Your task to perform on an android device: delete location history Image 0: 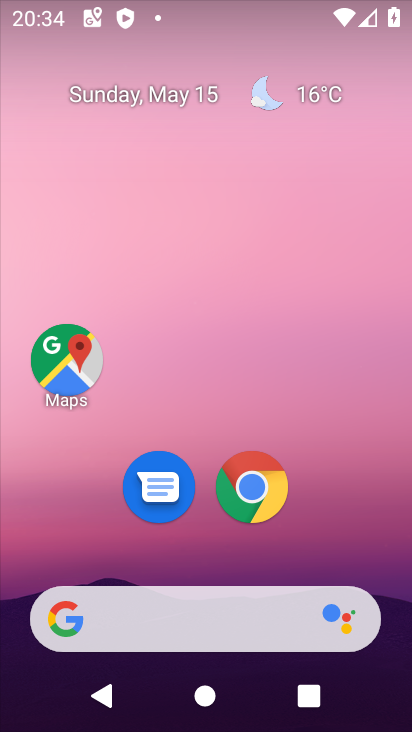
Step 0: drag from (390, 650) to (380, 187)
Your task to perform on an android device: delete location history Image 1: 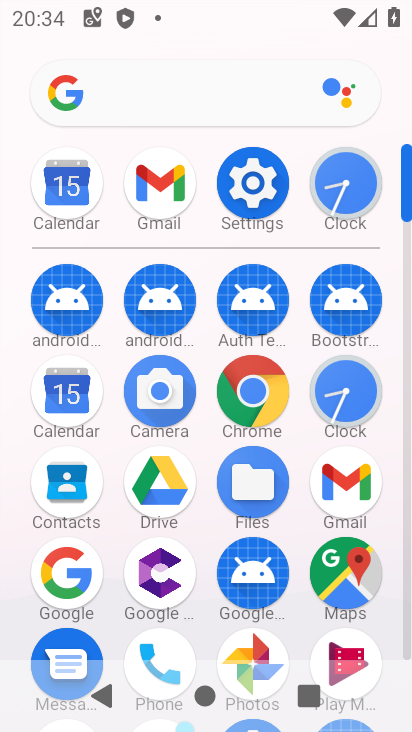
Step 1: click (248, 188)
Your task to perform on an android device: delete location history Image 2: 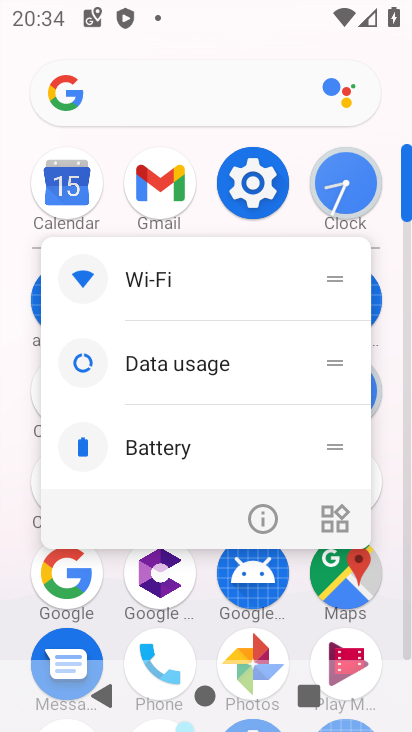
Step 2: click (249, 186)
Your task to perform on an android device: delete location history Image 3: 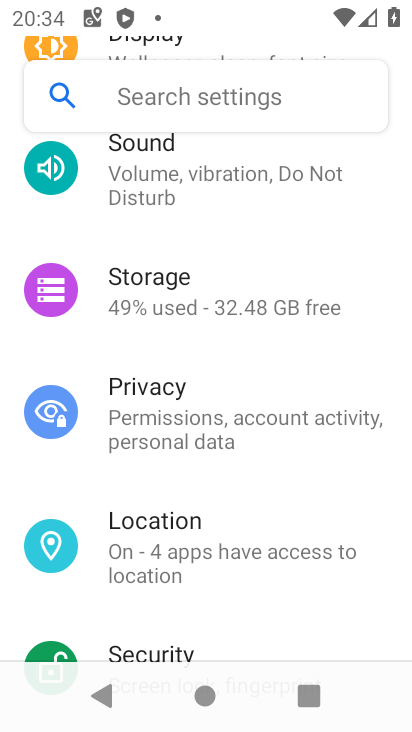
Step 3: click (152, 535)
Your task to perform on an android device: delete location history Image 4: 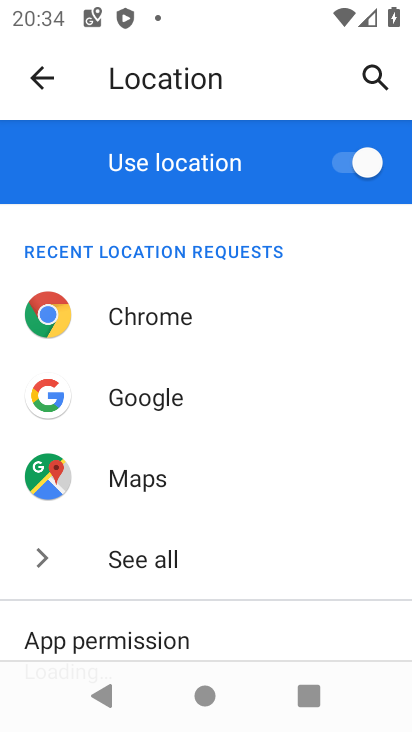
Step 4: drag from (216, 531) to (227, 375)
Your task to perform on an android device: delete location history Image 5: 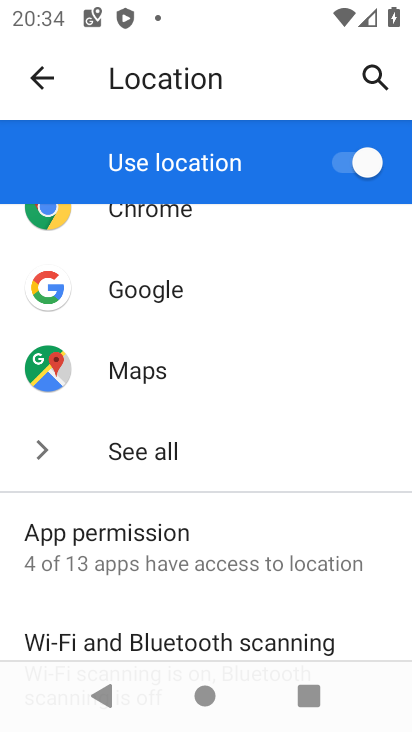
Step 5: drag from (280, 506) to (306, 356)
Your task to perform on an android device: delete location history Image 6: 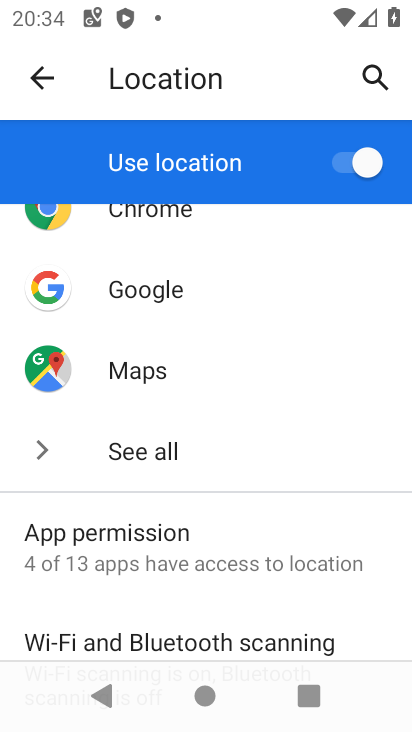
Step 6: drag from (288, 620) to (315, 416)
Your task to perform on an android device: delete location history Image 7: 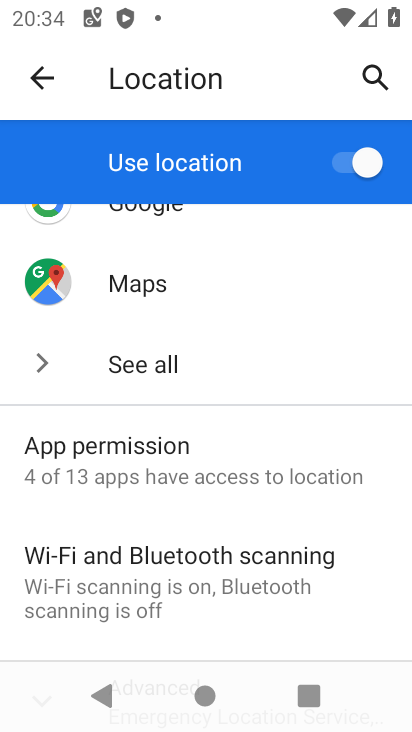
Step 7: drag from (310, 602) to (302, 232)
Your task to perform on an android device: delete location history Image 8: 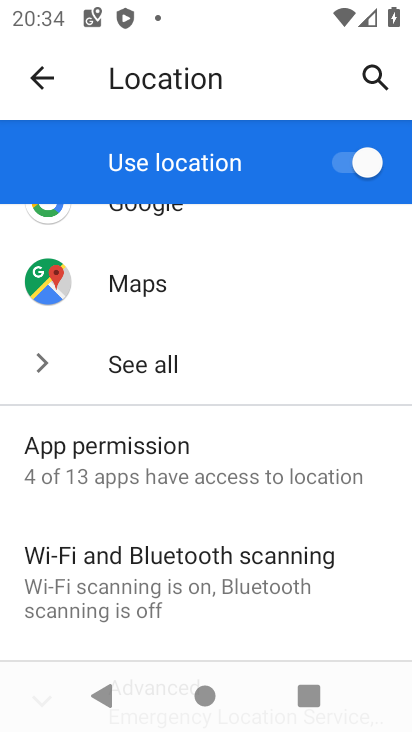
Step 8: drag from (360, 611) to (328, 318)
Your task to perform on an android device: delete location history Image 9: 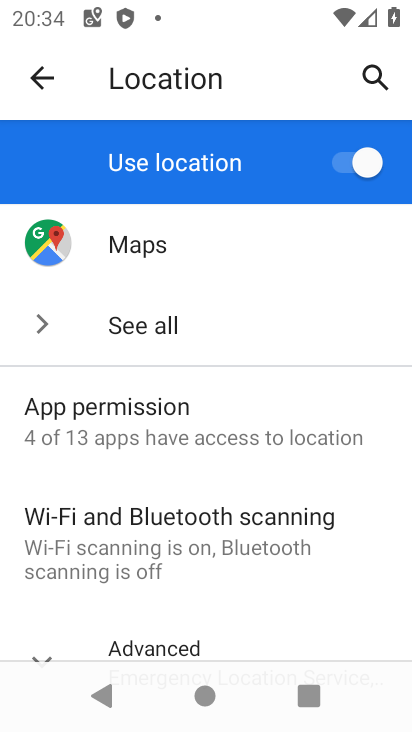
Step 9: drag from (337, 610) to (344, 273)
Your task to perform on an android device: delete location history Image 10: 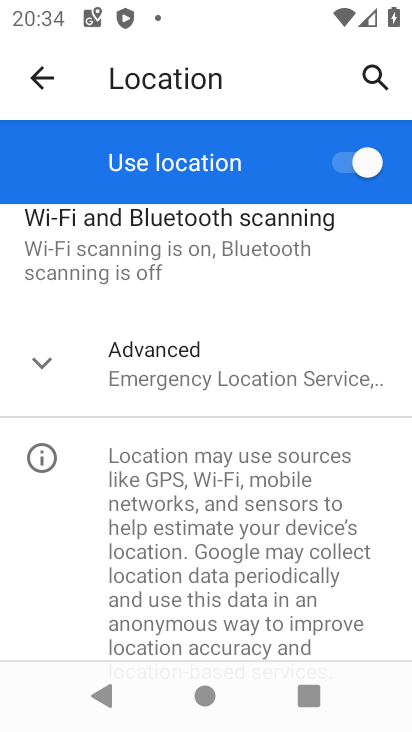
Step 10: click (37, 368)
Your task to perform on an android device: delete location history Image 11: 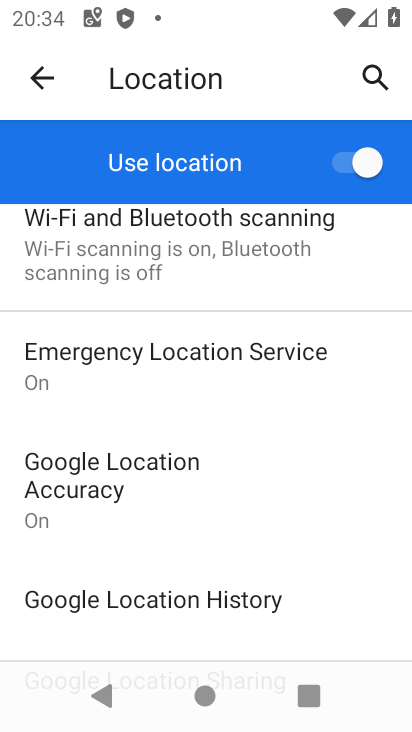
Step 11: drag from (288, 613) to (268, 438)
Your task to perform on an android device: delete location history Image 12: 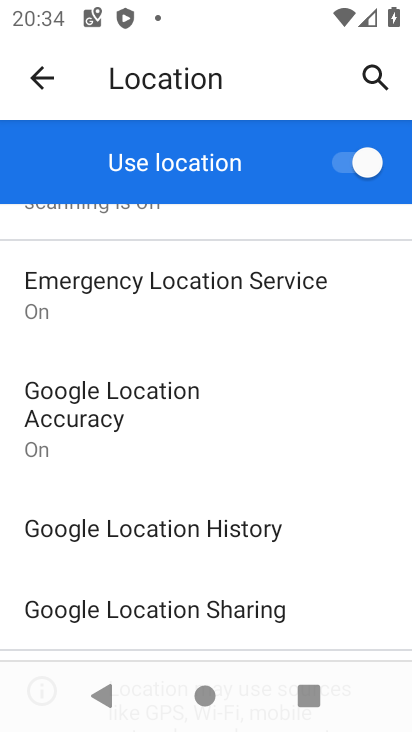
Step 12: click (105, 527)
Your task to perform on an android device: delete location history Image 13: 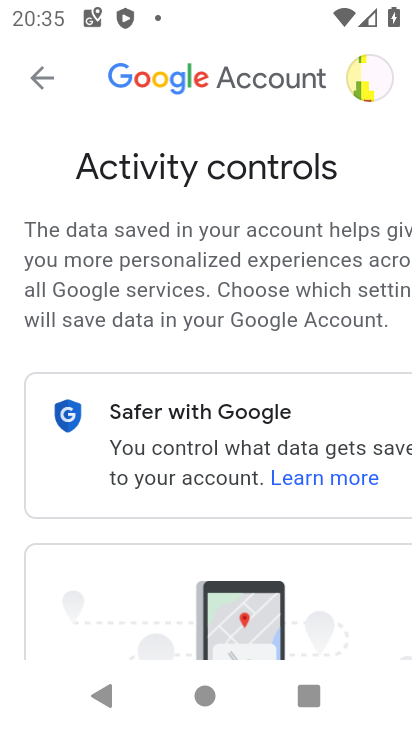
Step 13: drag from (306, 570) to (297, 324)
Your task to perform on an android device: delete location history Image 14: 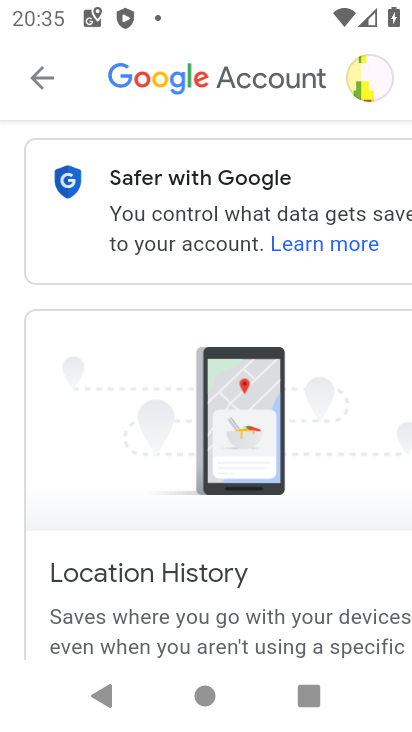
Step 14: drag from (331, 525) to (343, 270)
Your task to perform on an android device: delete location history Image 15: 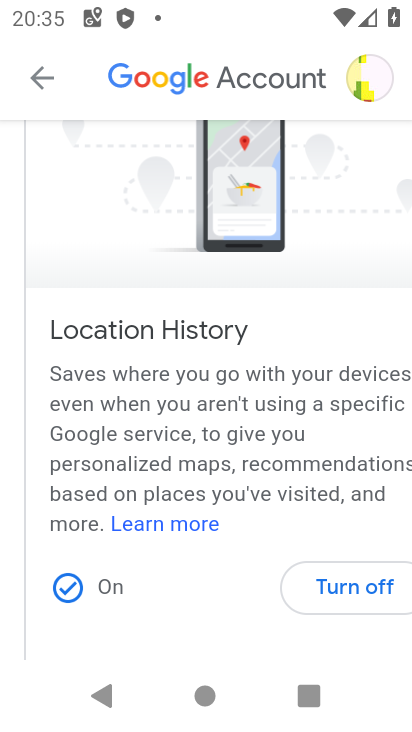
Step 15: drag from (220, 616) to (262, 339)
Your task to perform on an android device: delete location history Image 16: 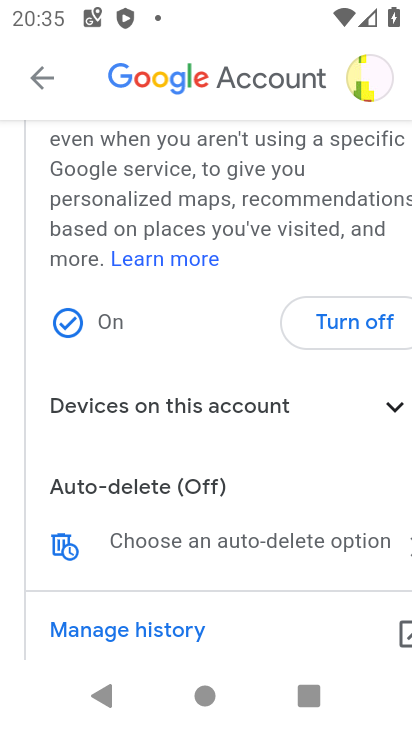
Step 16: drag from (228, 566) to (214, 292)
Your task to perform on an android device: delete location history Image 17: 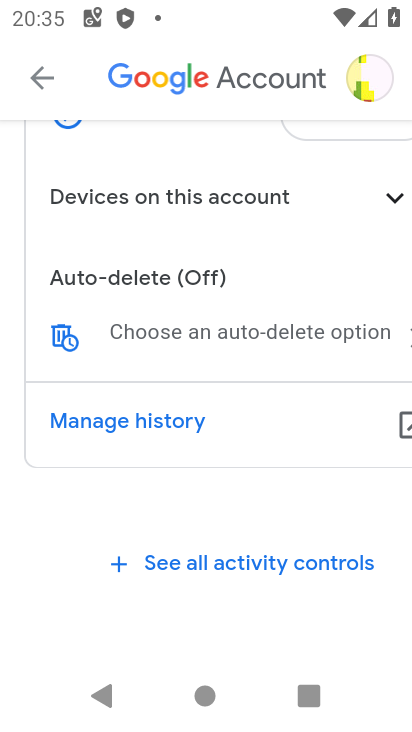
Step 17: click (208, 276)
Your task to perform on an android device: delete location history Image 18: 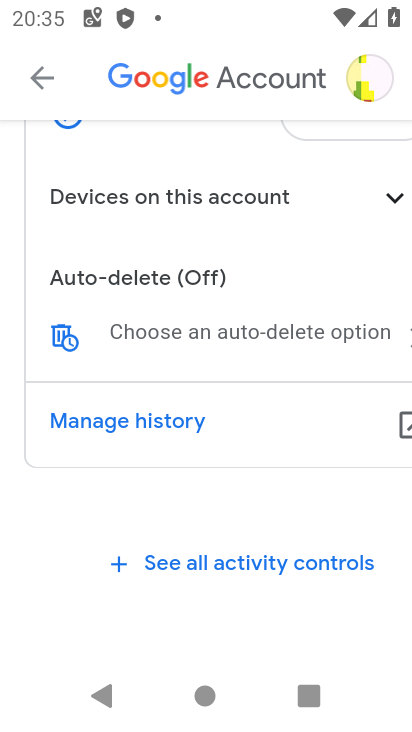
Step 18: click (139, 271)
Your task to perform on an android device: delete location history Image 19: 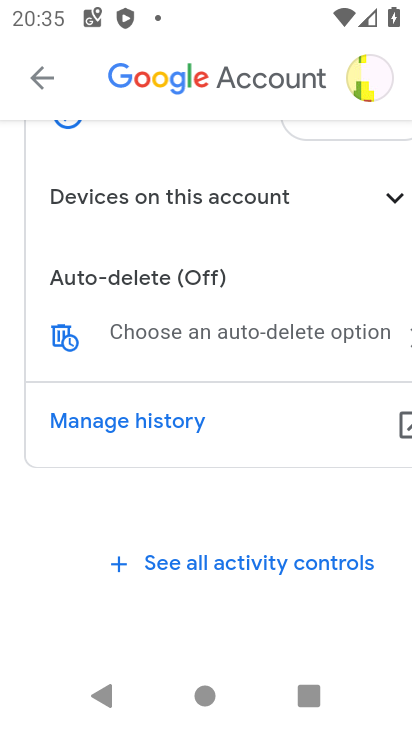
Step 19: click (123, 412)
Your task to perform on an android device: delete location history Image 20: 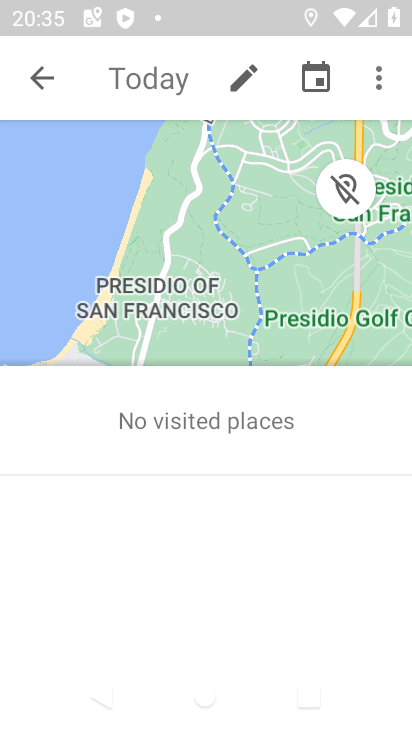
Step 20: click (374, 77)
Your task to perform on an android device: delete location history Image 21: 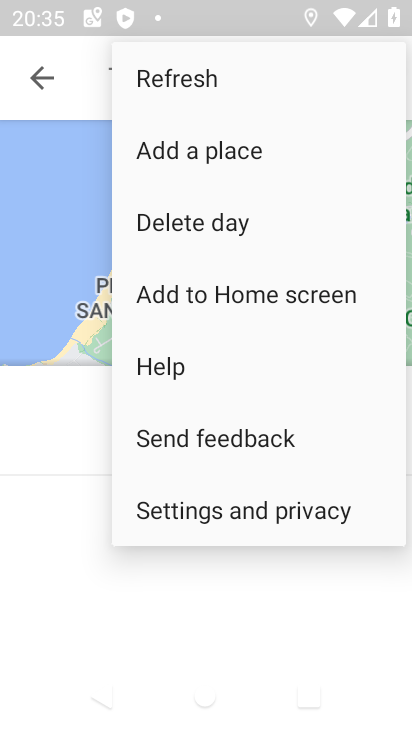
Step 21: click (214, 499)
Your task to perform on an android device: delete location history Image 22: 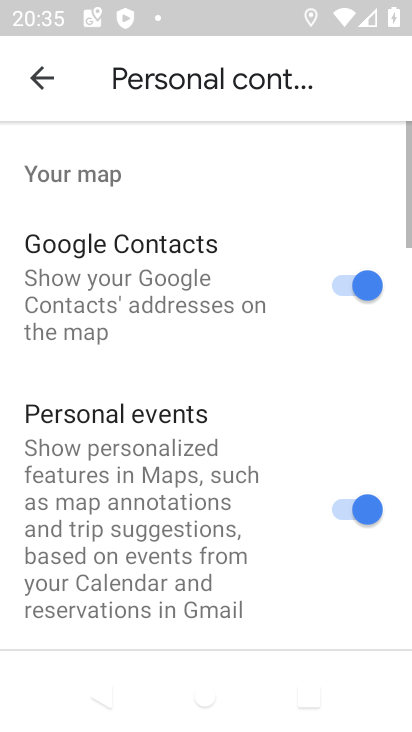
Step 22: drag from (274, 594) to (280, 252)
Your task to perform on an android device: delete location history Image 23: 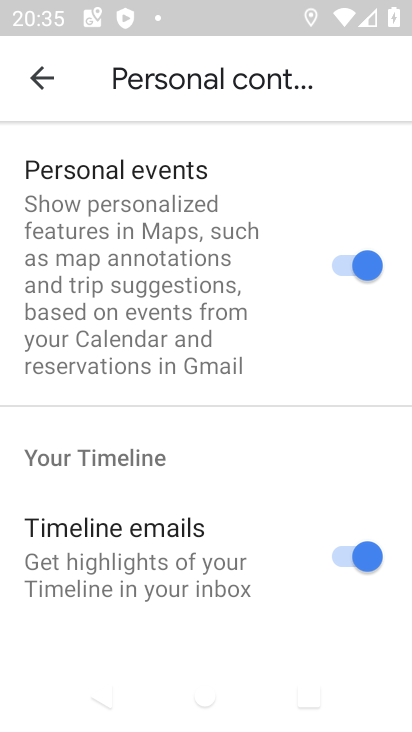
Step 23: drag from (245, 544) to (234, 266)
Your task to perform on an android device: delete location history Image 24: 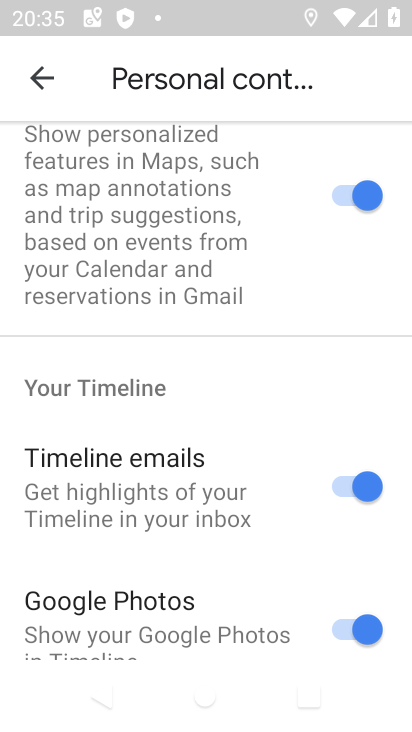
Step 24: drag from (196, 486) to (176, 264)
Your task to perform on an android device: delete location history Image 25: 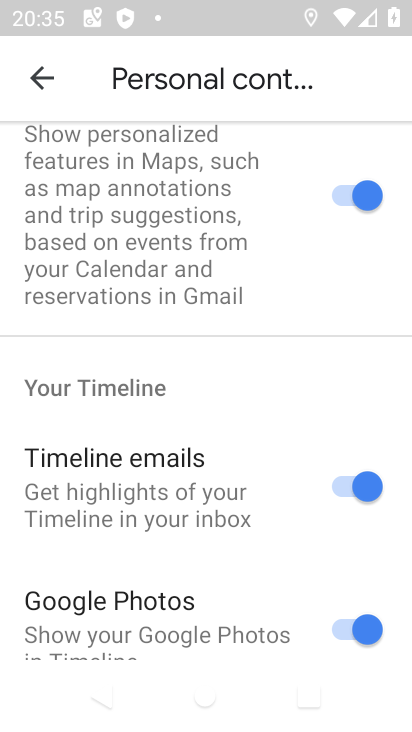
Step 25: drag from (280, 641) to (289, 351)
Your task to perform on an android device: delete location history Image 26: 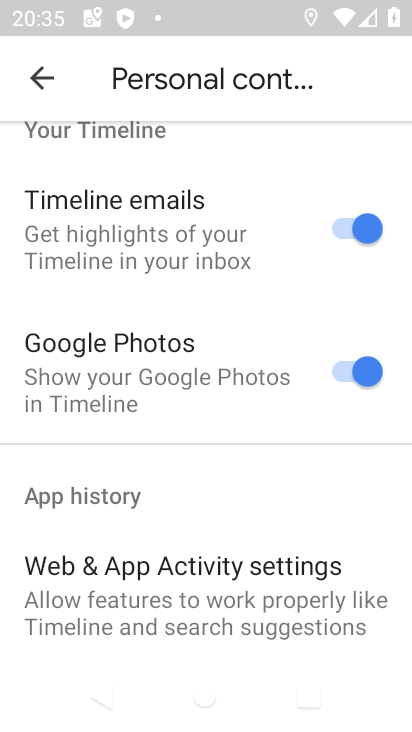
Step 26: drag from (262, 575) to (270, 304)
Your task to perform on an android device: delete location history Image 27: 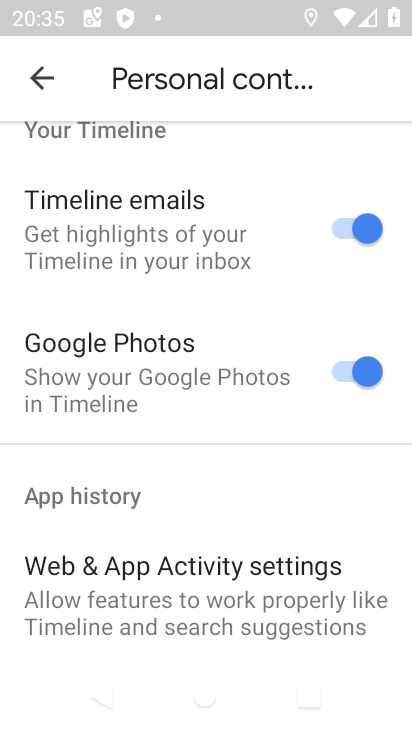
Step 27: drag from (241, 562) to (256, 217)
Your task to perform on an android device: delete location history Image 28: 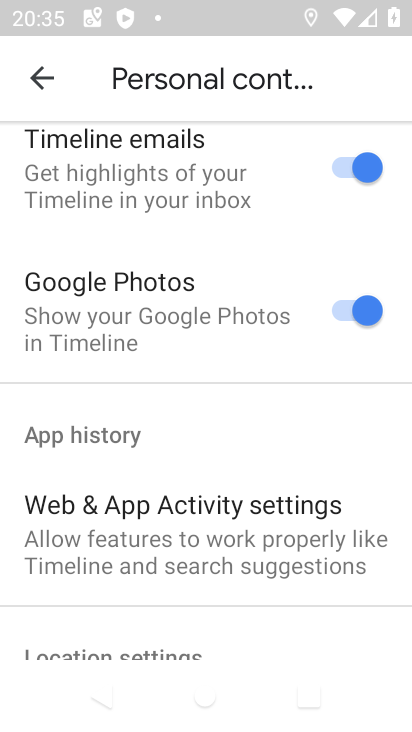
Step 28: drag from (250, 602) to (222, 297)
Your task to perform on an android device: delete location history Image 29: 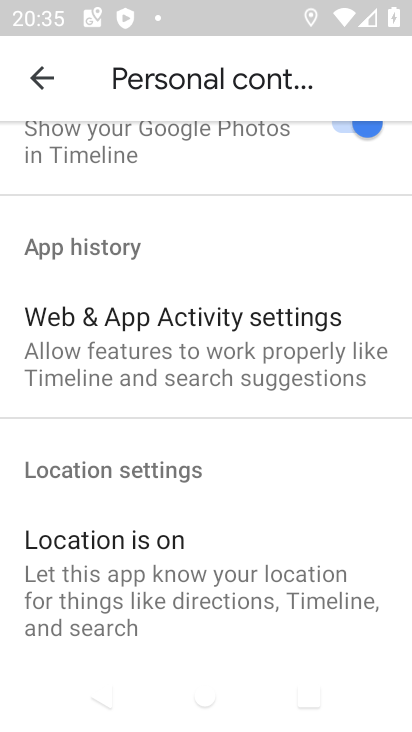
Step 29: drag from (193, 590) to (201, 318)
Your task to perform on an android device: delete location history Image 30: 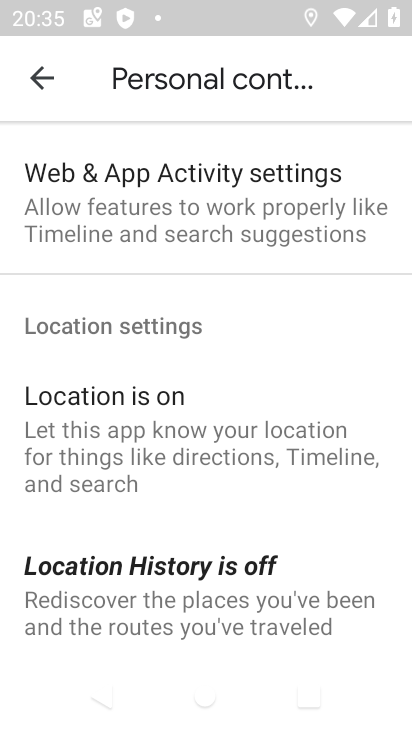
Step 30: drag from (209, 600) to (201, 382)
Your task to perform on an android device: delete location history Image 31: 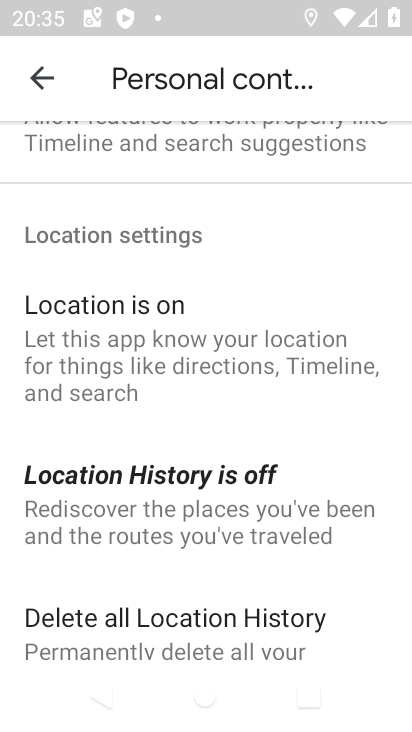
Step 31: drag from (161, 597) to (140, 334)
Your task to perform on an android device: delete location history Image 32: 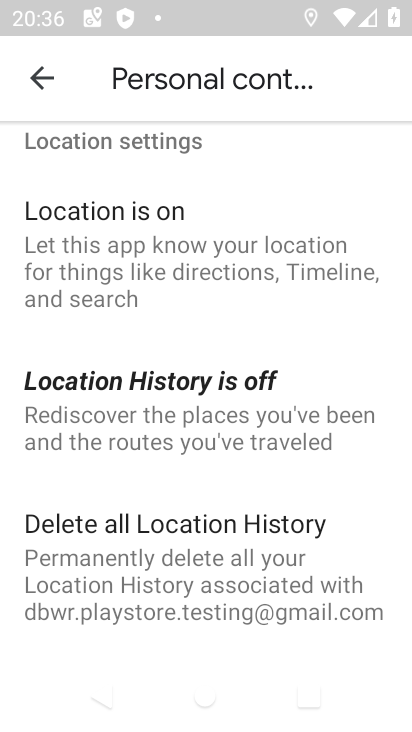
Step 32: click (105, 527)
Your task to perform on an android device: delete location history Image 33: 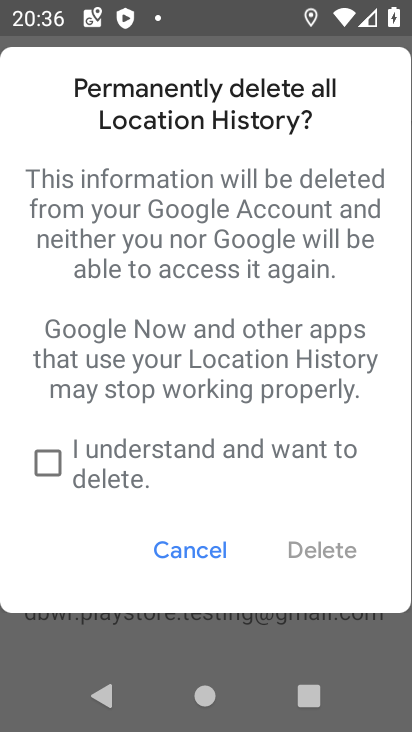
Step 33: click (59, 467)
Your task to perform on an android device: delete location history Image 34: 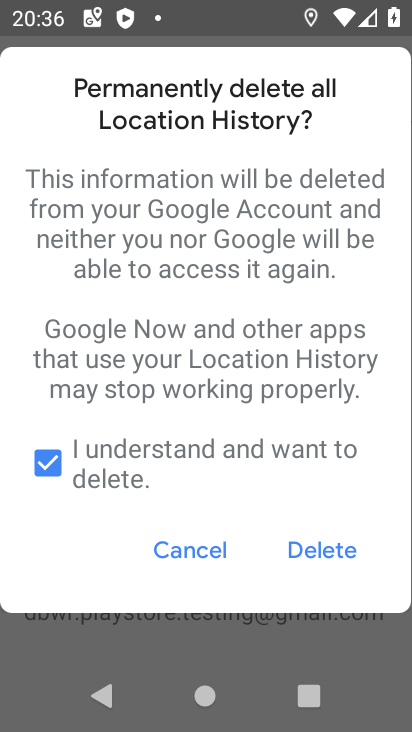
Step 34: click (312, 542)
Your task to perform on an android device: delete location history Image 35: 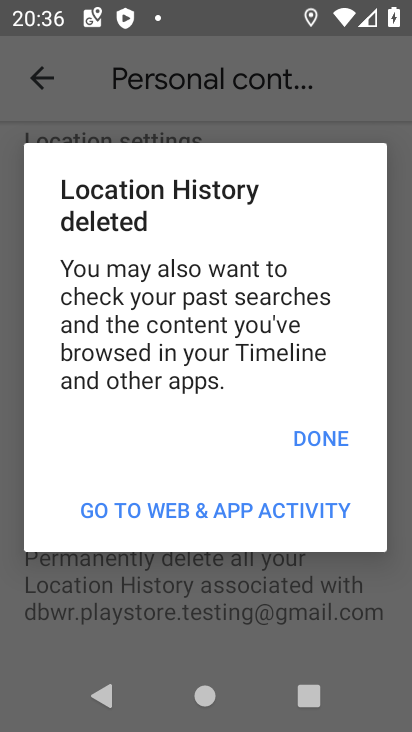
Step 35: click (332, 434)
Your task to perform on an android device: delete location history Image 36: 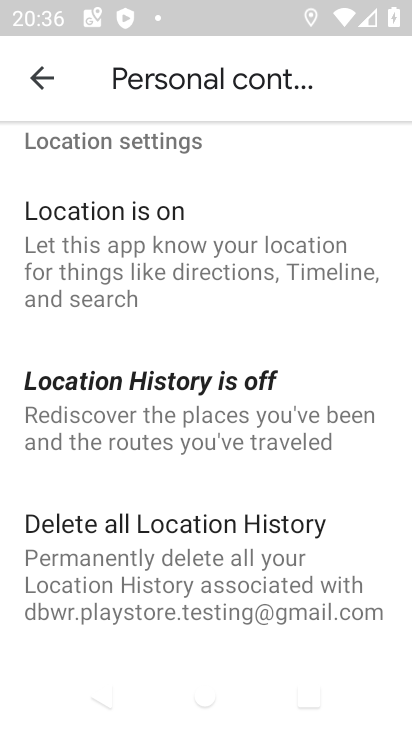
Step 36: task complete